Your task to perform on an android device: What's the weather? Image 0: 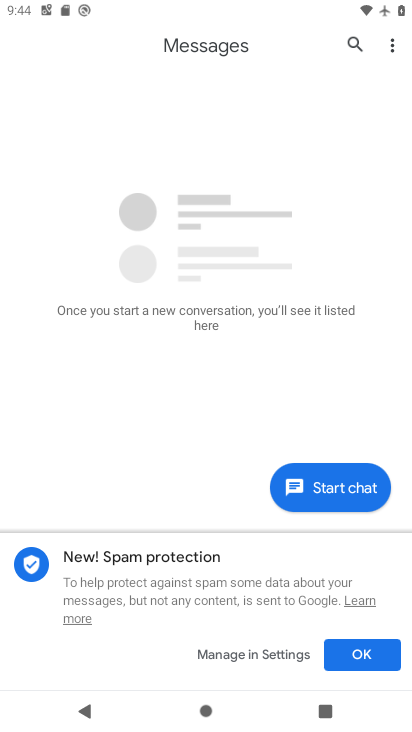
Step 0: press home button
Your task to perform on an android device: What's the weather? Image 1: 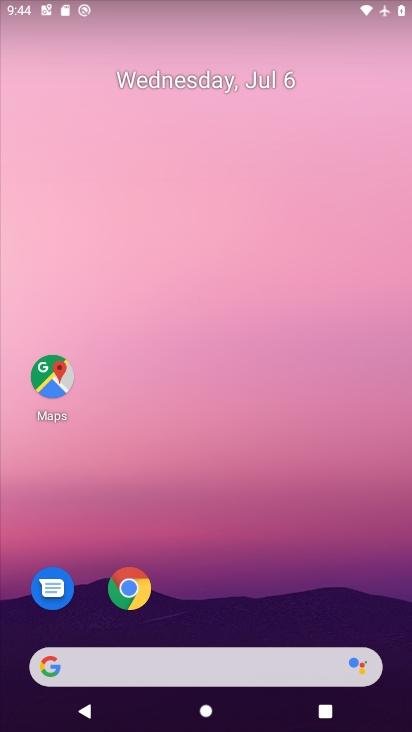
Step 1: click (216, 664)
Your task to perform on an android device: What's the weather? Image 2: 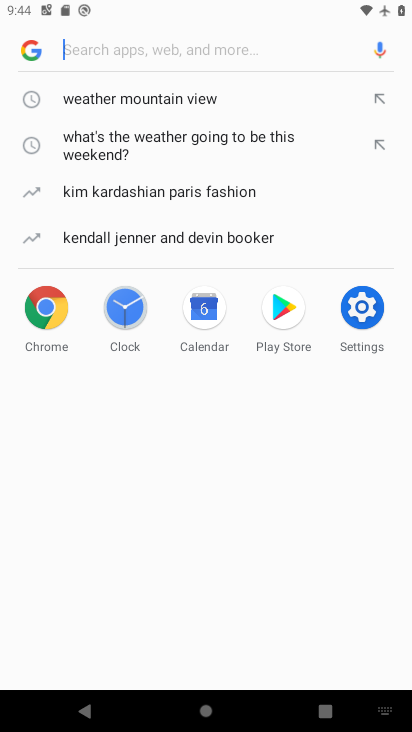
Step 2: click (222, 95)
Your task to perform on an android device: What's the weather? Image 3: 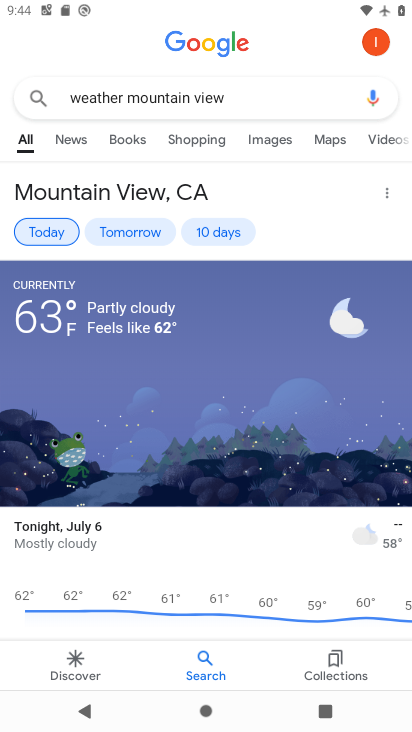
Step 3: task complete